Your task to perform on an android device: Go to Google Image 0: 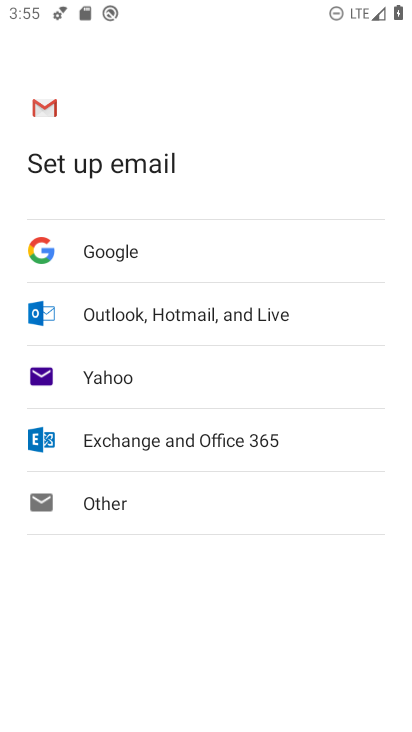
Step 0: press home button
Your task to perform on an android device: Go to Google Image 1: 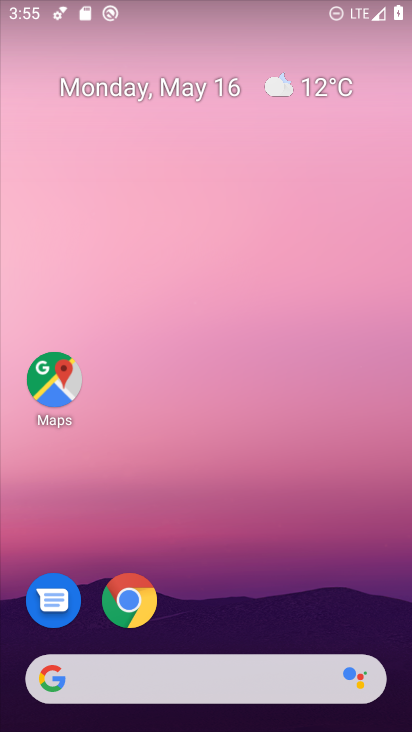
Step 1: drag from (196, 611) to (245, 122)
Your task to perform on an android device: Go to Google Image 2: 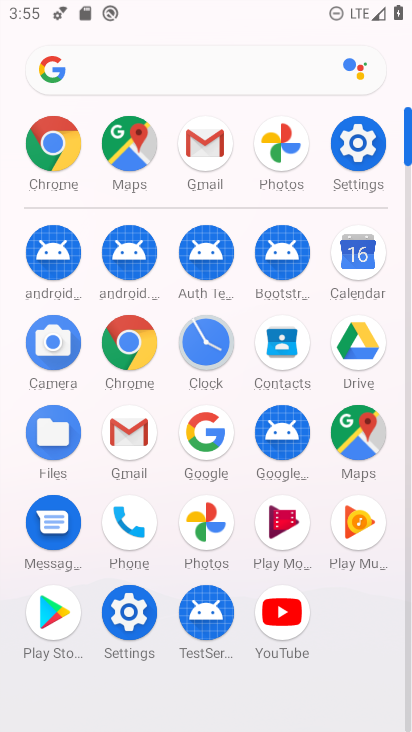
Step 2: click (212, 428)
Your task to perform on an android device: Go to Google Image 3: 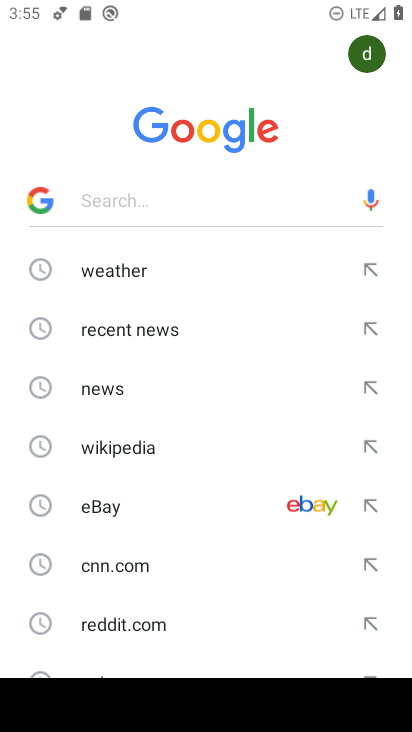
Step 3: task complete